Your task to perform on an android device: open a new tab in the chrome app Image 0: 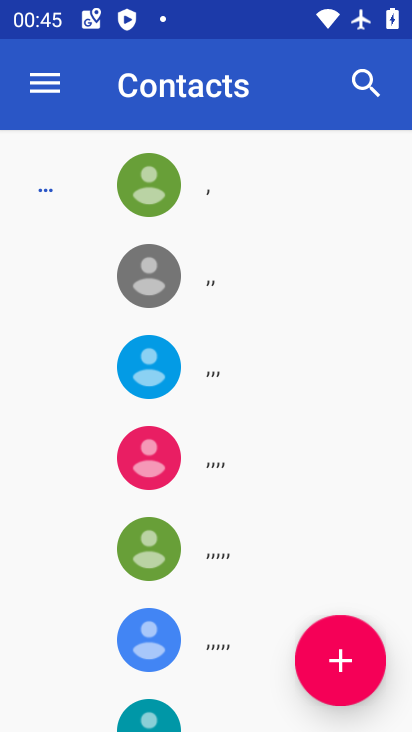
Step 0: press home button
Your task to perform on an android device: open a new tab in the chrome app Image 1: 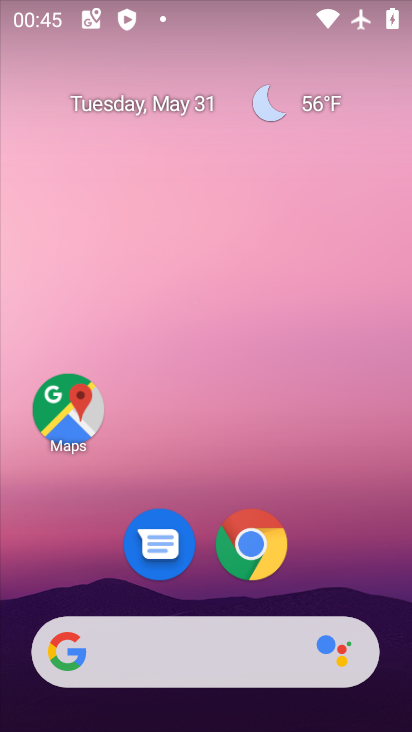
Step 1: click (253, 544)
Your task to perform on an android device: open a new tab in the chrome app Image 2: 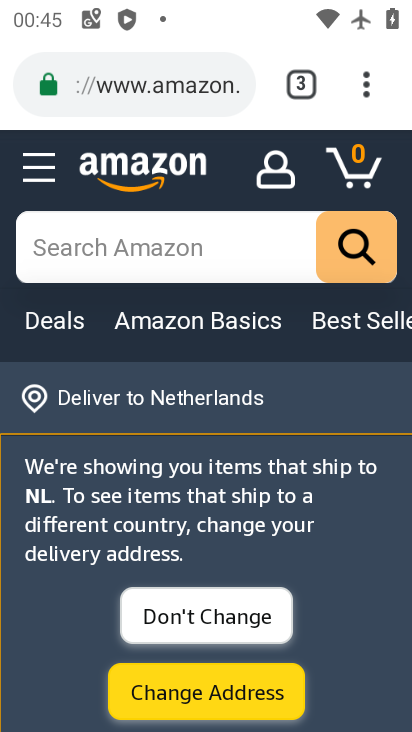
Step 2: click (363, 80)
Your task to perform on an android device: open a new tab in the chrome app Image 3: 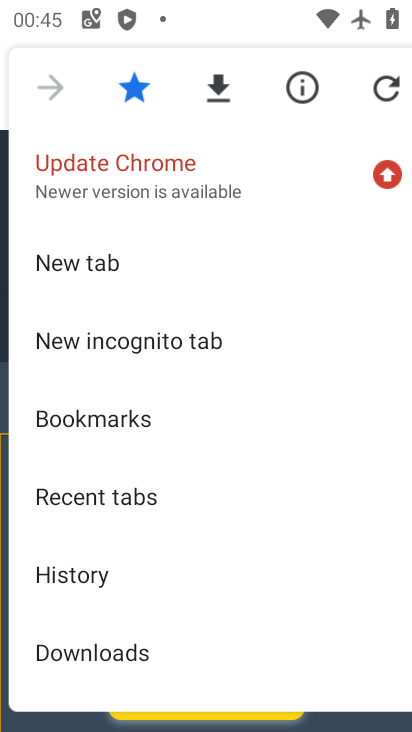
Step 3: click (90, 259)
Your task to perform on an android device: open a new tab in the chrome app Image 4: 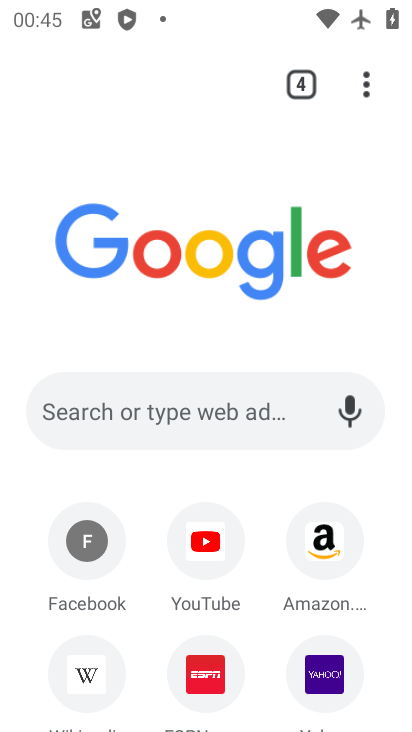
Step 4: task complete